Your task to perform on an android device: Go to network settings Image 0: 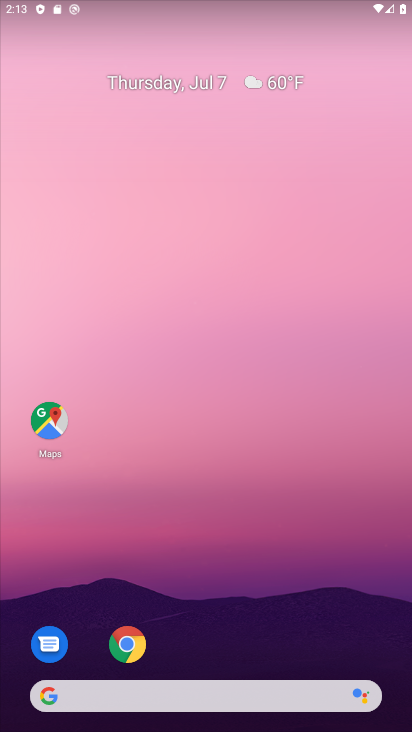
Step 0: drag from (221, 675) to (265, 190)
Your task to perform on an android device: Go to network settings Image 1: 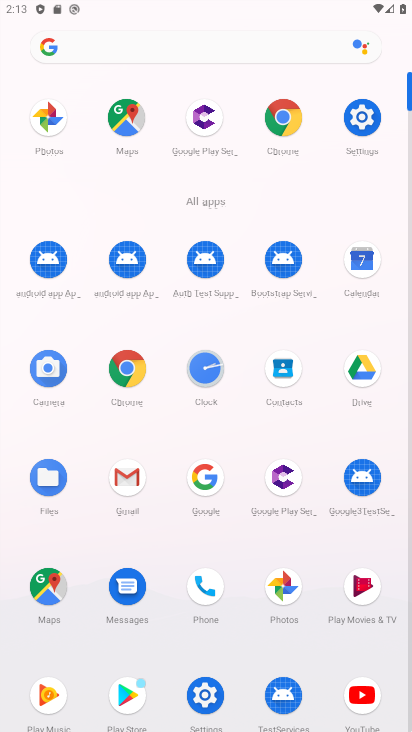
Step 1: click (359, 121)
Your task to perform on an android device: Go to network settings Image 2: 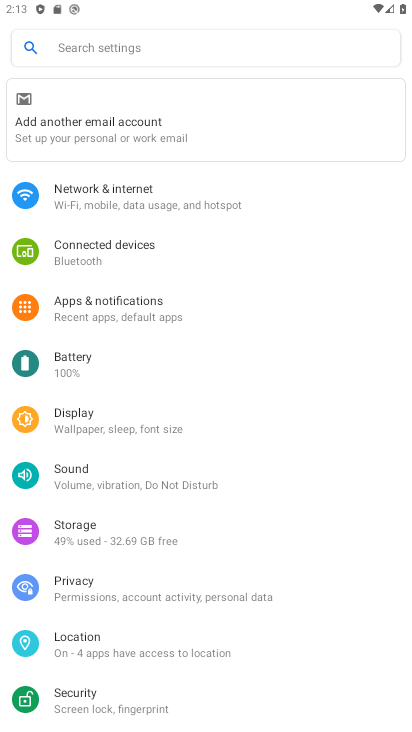
Step 2: click (125, 199)
Your task to perform on an android device: Go to network settings Image 3: 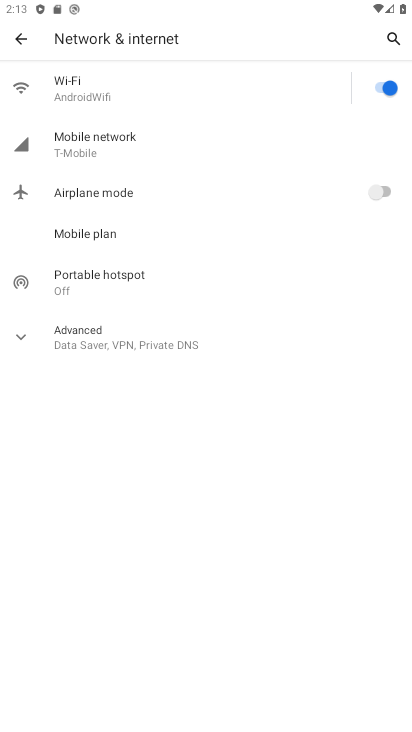
Step 3: task complete